Your task to perform on an android device: allow notifications from all sites in the chrome app Image 0: 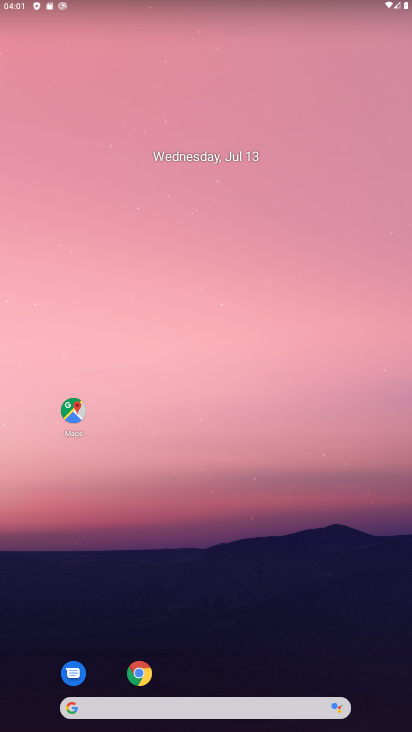
Step 0: drag from (342, 597) to (310, 206)
Your task to perform on an android device: allow notifications from all sites in the chrome app Image 1: 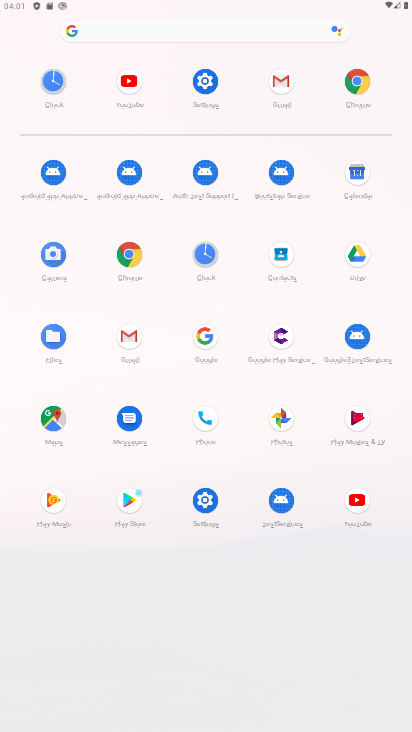
Step 1: click (124, 248)
Your task to perform on an android device: allow notifications from all sites in the chrome app Image 2: 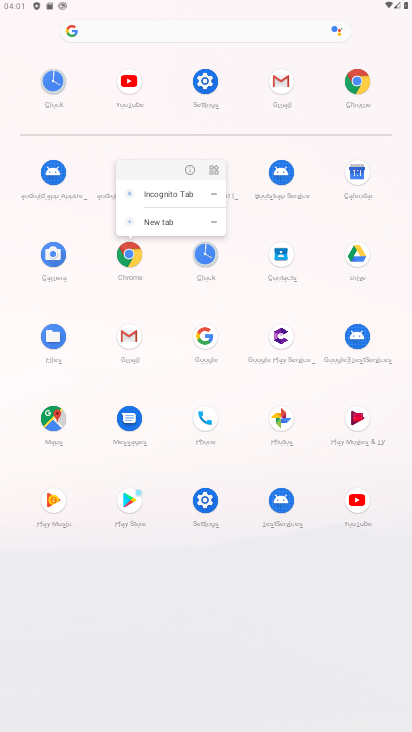
Step 2: click (194, 162)
Your task to perform on an android device: allow notifications from all sites in the chrome app Image 3: 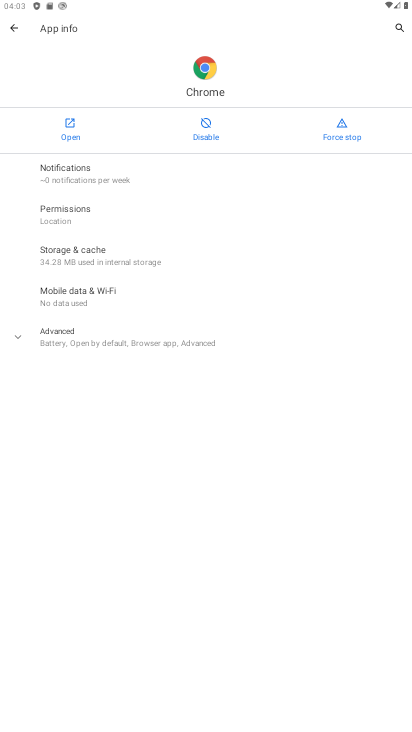
Step 3: click (47, 218)
Your task to perform on an android device: allow notifications from all sites in the chrome app Image 4: 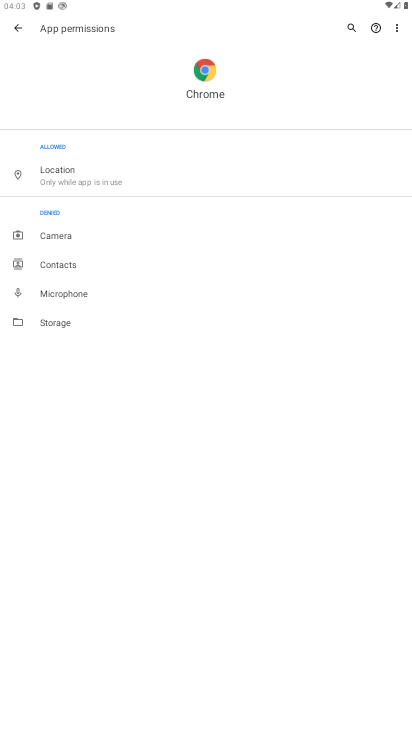
Step 4: click (9, 28)
Your task to perform on an android device: allow notifications from all sites in the chrome app Image 5: 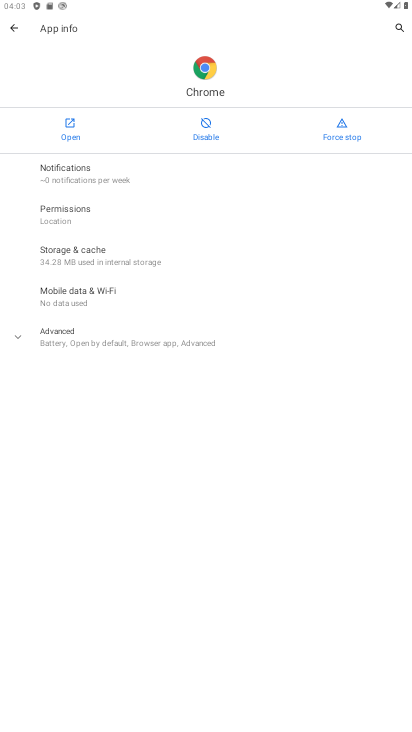
Step 5: click (65, 336)
Your task to perform on an android device: allow notifications from all sites in the chrome app Image 6: 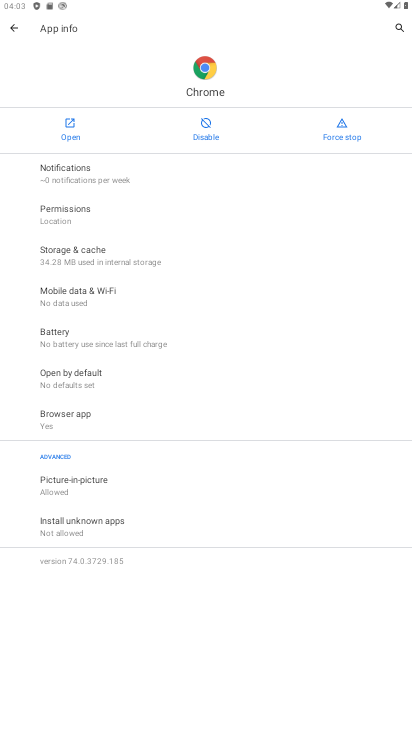
Step 6: click (110, 179)
Your task to perform on an android device: allow notifications from all sites in the chrome app Image 7: 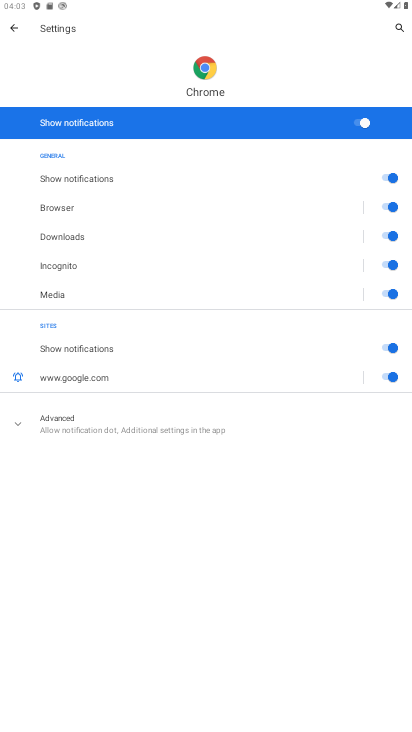
Step 7: click (22, 32)
Your task to perform on an android device: allow notifications from all sites in the chrome app Image 8: 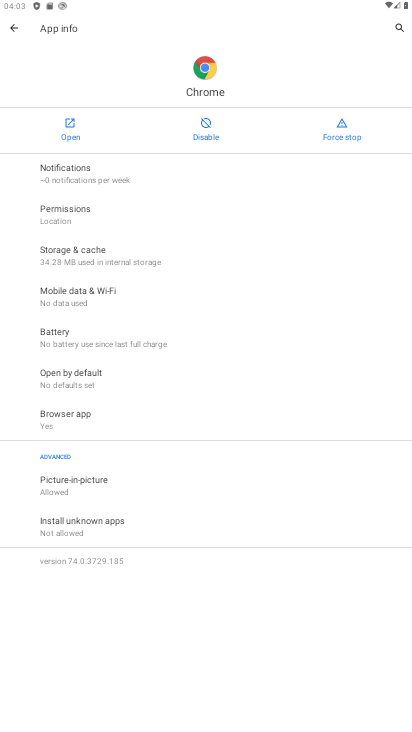
Step 8: click (36, 206)
Your task to perform on an android device: allow notifications from all sites in the chrome app Image 9: 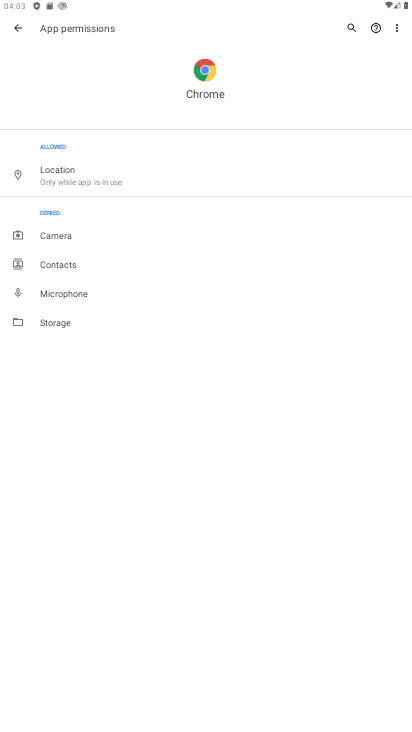
Step 9: click (45, 231)
Your task to perform on an android device: allow notifications from all sites in the chrome app Image 10: 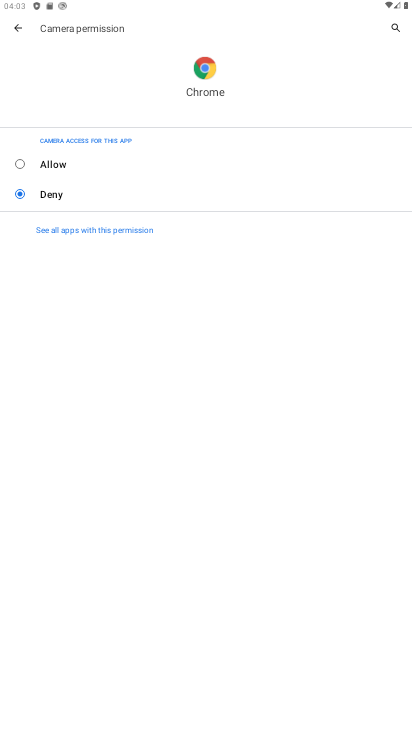
Step 10: click (53, 147)
Your task to perform on an android device: allow notifications from all sites in the chrome app Image 11: 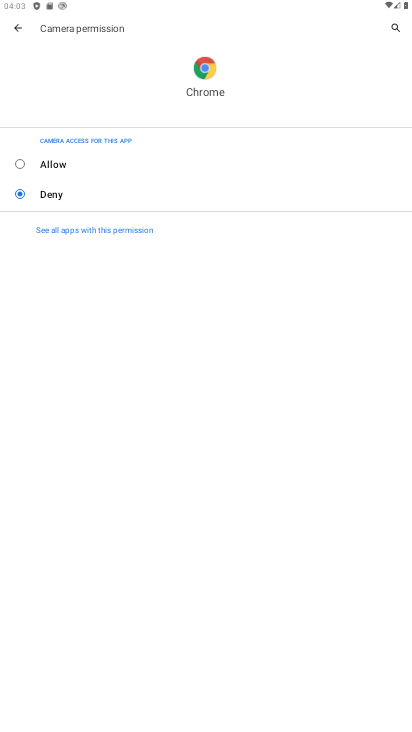
Step 11: click (41, 158)
Your task to perform on an android device: allow notifications from all sites in the chrome app Image 12: 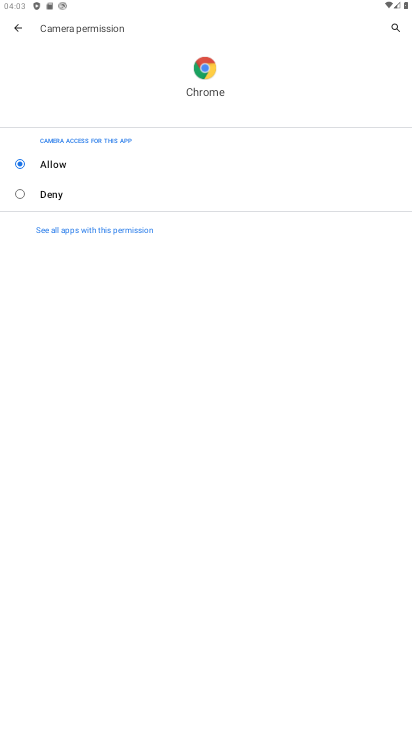
Step 12: click (16, 19)
Your task to perform on an android device: allow notifications from all sites in the chrome app Image 13: 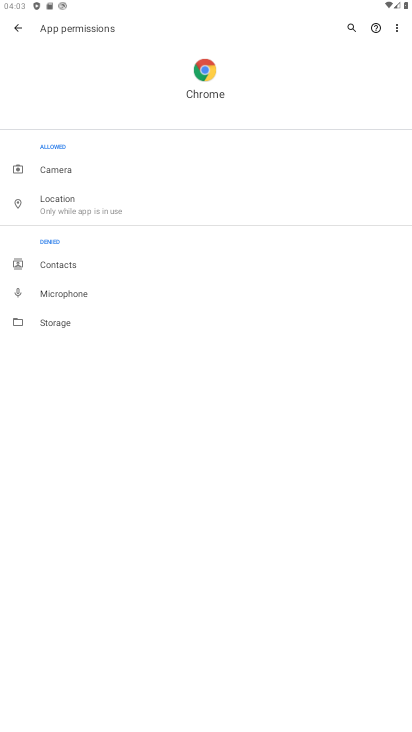
Step 13: click (16, 260)
Your task to perform on an android device: allow notifications from all sites in the chrome app Image 14: 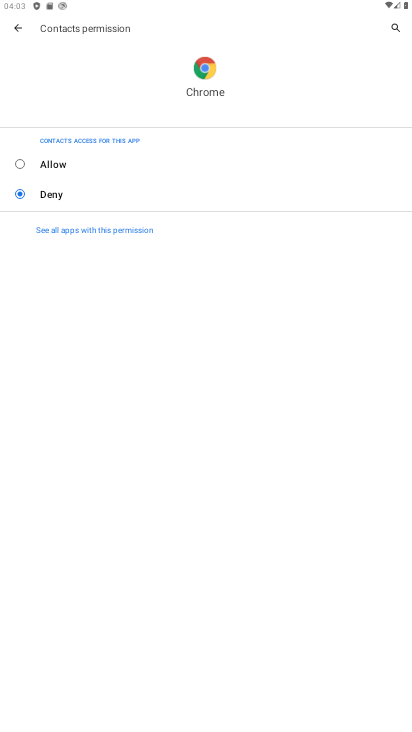
Step 14: click (16, 151)
Your task to perform on an android device: allow notifications from all sites in the chrome app Image 15: 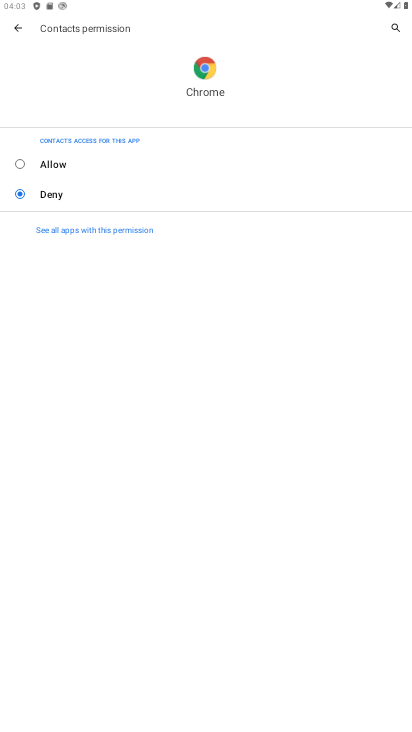
Step 15: click (16, 167)
Your task to perform on an android device: allow notifications from all sites in the chrome app Image 16: 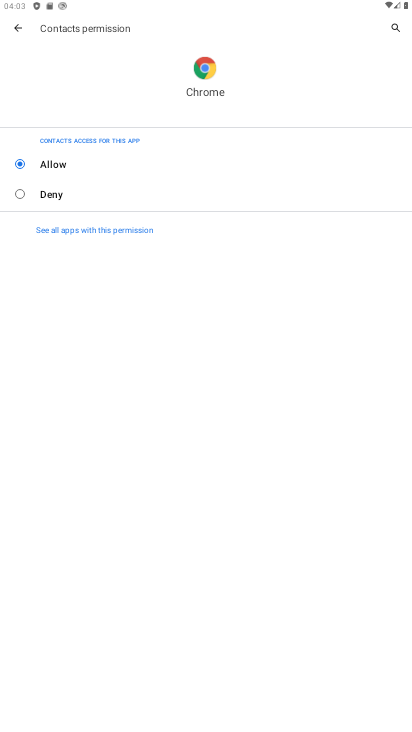
Step 16: click (23, 10)
Your task to perform on an android device: allow notifications from all sites in the chrome app Image 17: 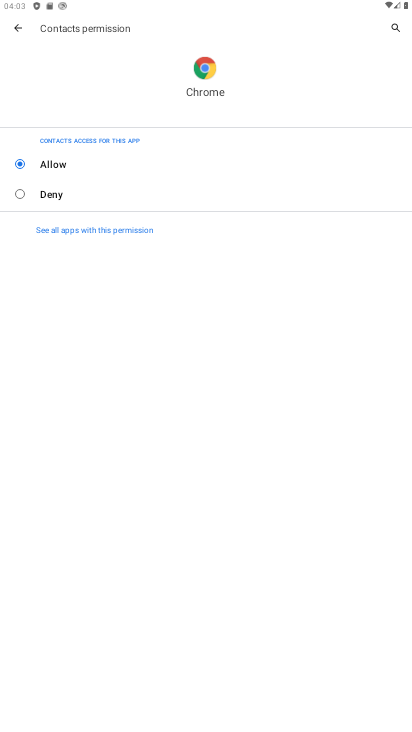
Step 17: click (14, 20)
Your task to perform on an android device: allow notifications from all sites in the chrome app Image 18: 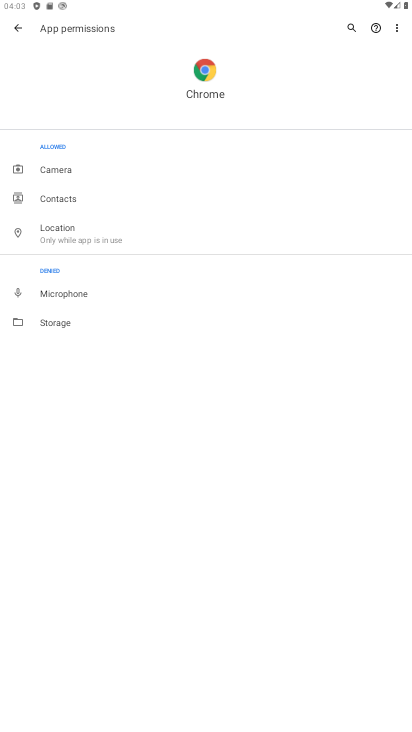
Step 18: click (12, 282)
Your task to perform on an android device: allow notifications from all sites in the chrome app Image 19: 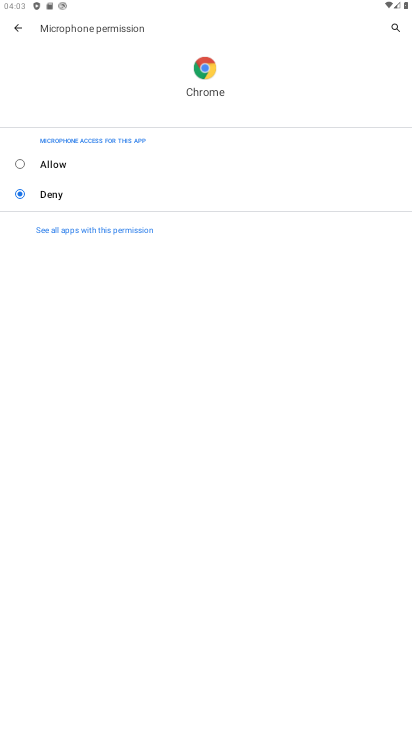
Step 19: click (31, 163)
Your task to perform on an android device: allow notifications from all sites in the chrome app Image 20: 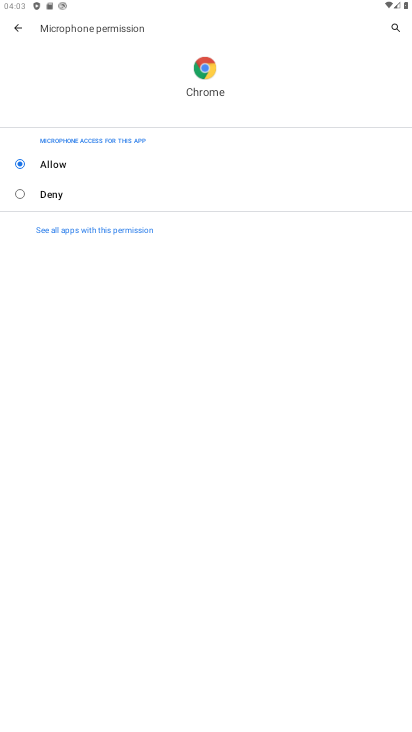
Step 20: click (17, 2)
Your task to perform on an android device: allow notifications from all sites in the chrome app Image 21: 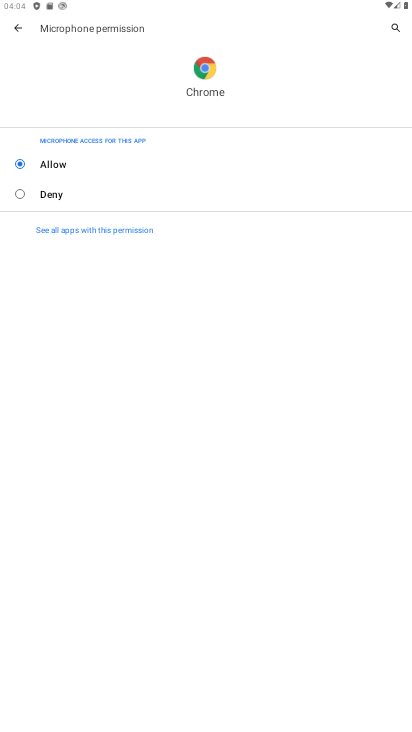
Step 21: click (19, 36)
Your task to perform on an android device: allow notifications from all sites in the chrome app Image 22: 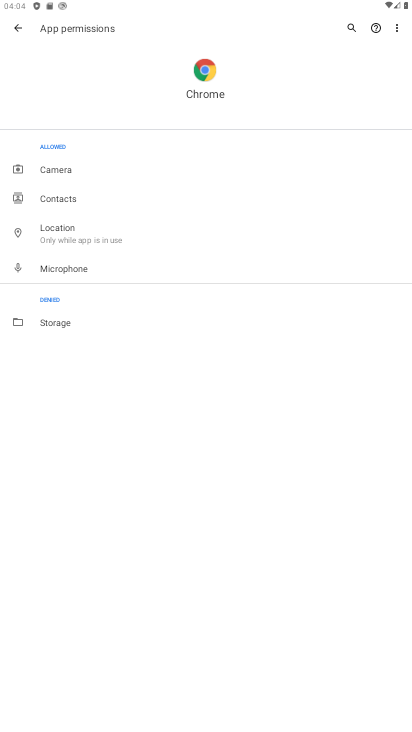
Step 22: click (22, 310)
Your task to perform on an android device: allow notifications from all sites in the chrome app Image 23: 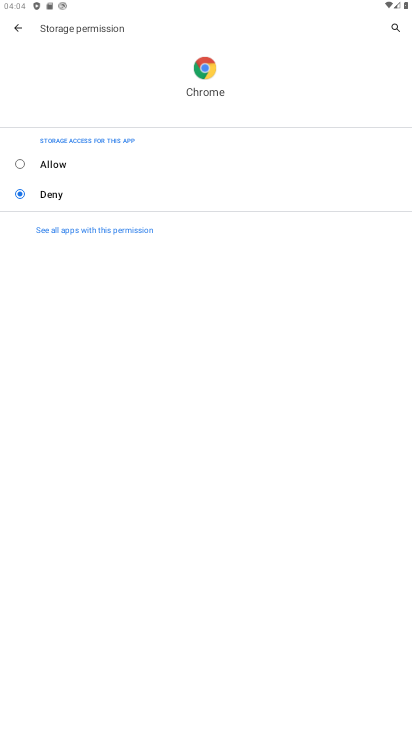
Step 23: click (21, 32)
Your task to perform on an android device: allow notifications from all sites in the chrome app Image 24: 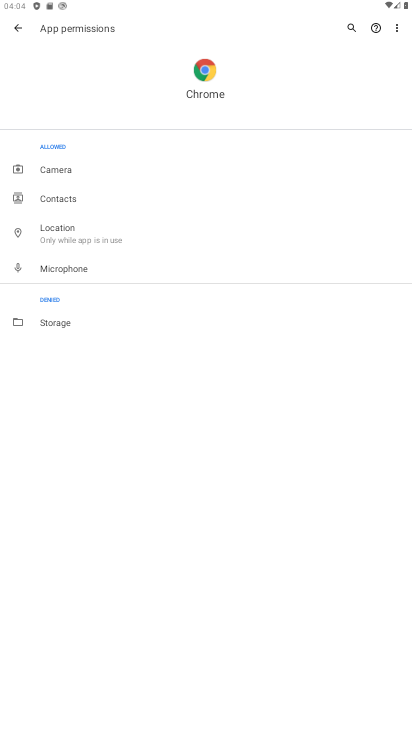
Step 24: click (43, 316)
Your task to perform on an android device: allow notifications from all sites in the chrome app Image 25: 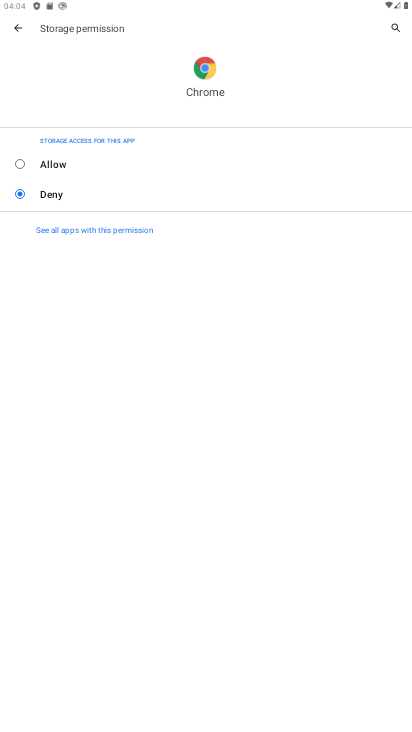
Step 25: click (43, 167)
Your task to perform on an android device: allow notifications from all sites in the chrome app Image 26: 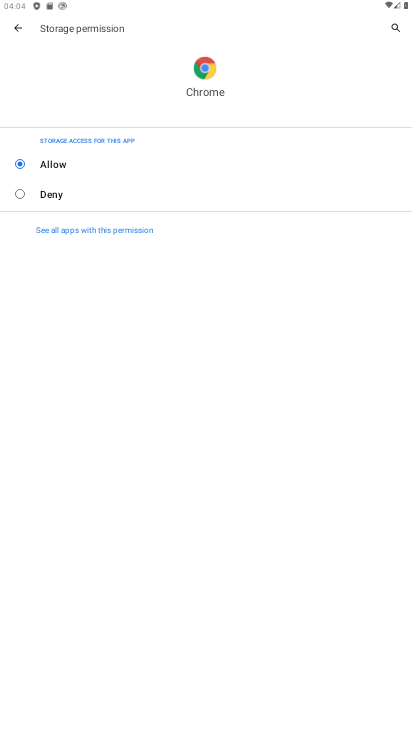
Step 26: click (18, 35)
Your task to perform on an android device: allow notifications from all sites in the chrome app Image 27: 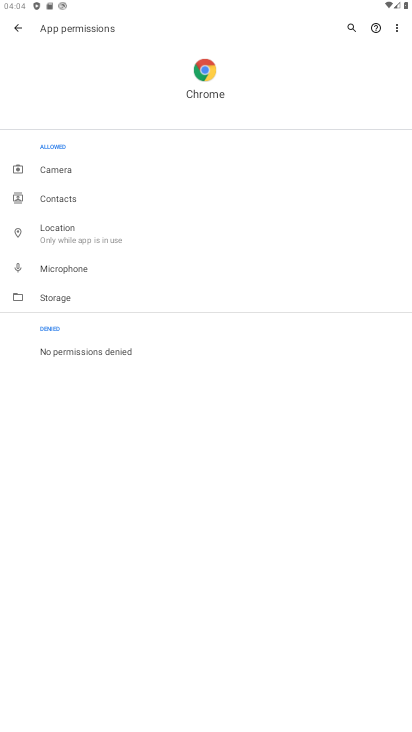
Step 27: task complete